Your task to perform on an android device: Open privacy settings Image 0: 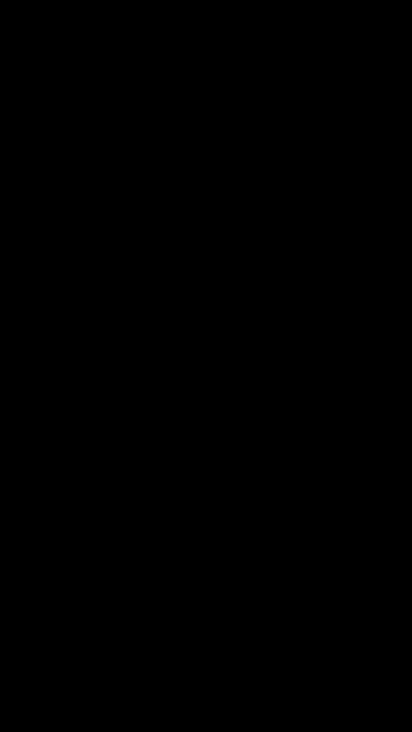
Step 0: click (221, 309)
Your task to perform on an android device: Open privacy settings Image 1: 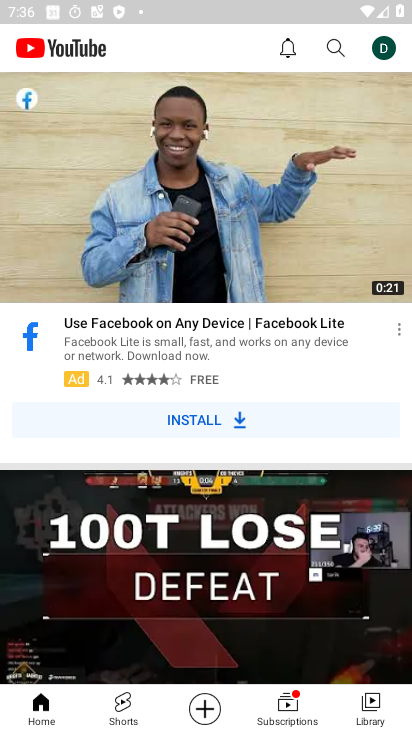
Step 1: press home button
Your task to perform on an android device: Open privacy settings Image 2: 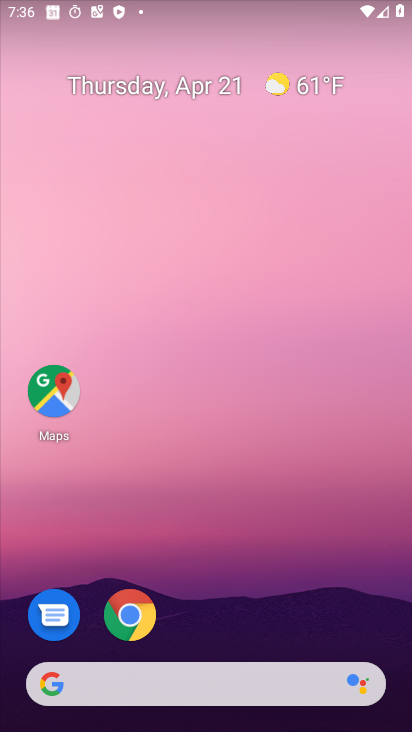
Step 2: drag from (188, 634) to (246, 190)
Your task to perform on an android device: Open privacy settings Image 3: 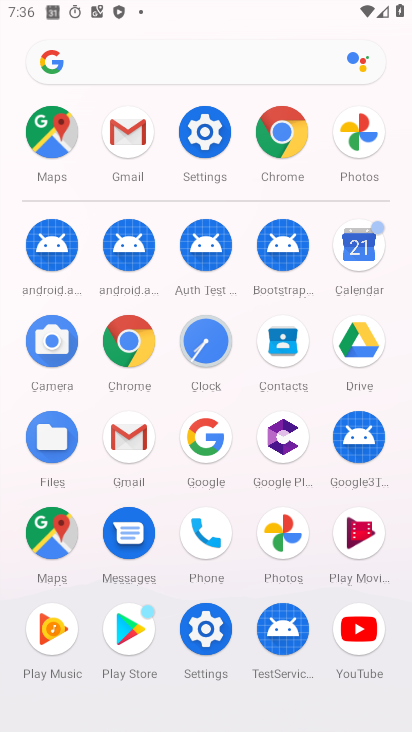
Step 3: click (205, 126)
Your task to perform on an android device: Open privacy settings Image 4: 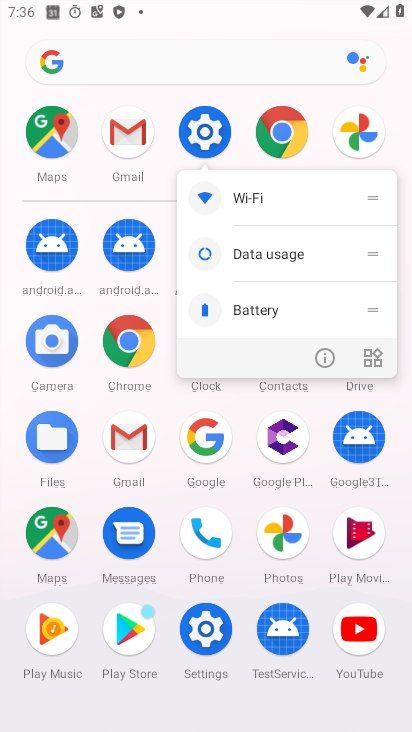
Step 4: click (328, 357)
Your task to perform on an android device: Open privacy settings Image 5: 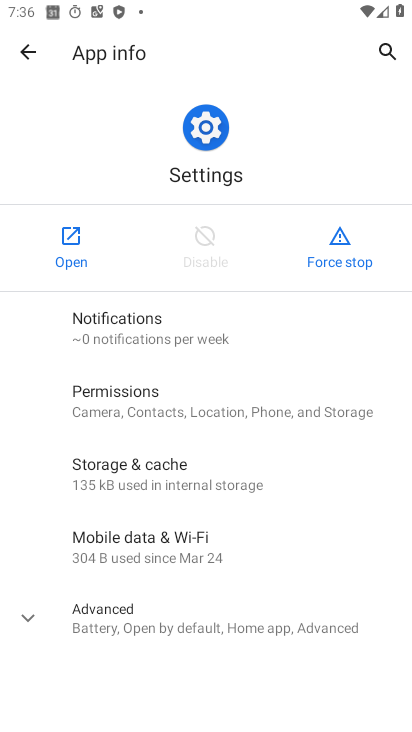
Step 5: click (79, 248)
Your task to perform on an android device: Open privacy settings Image 6: 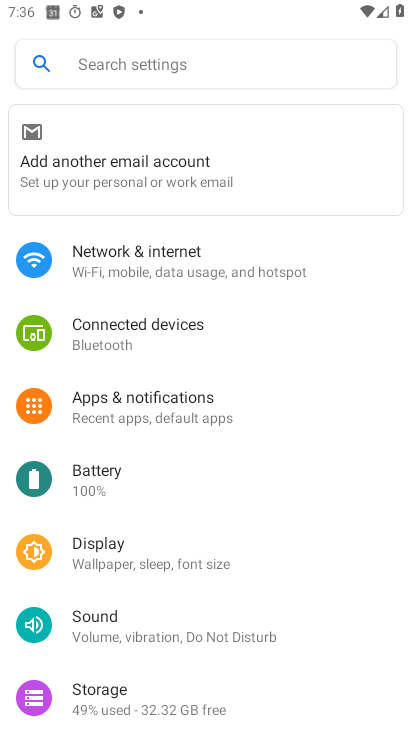
Step 6: drag from (240, 560) to (312, 58)
Your task to perform on an android device: Open privacy settings Image 7: 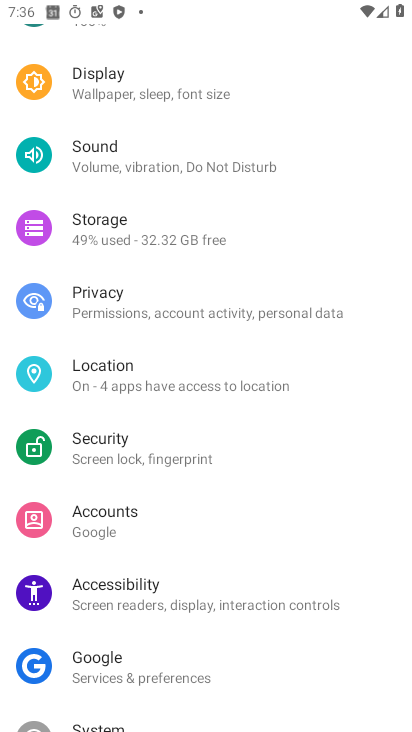
Step 7: click (130, 305)
Your task to perform on an android device: Open privacy settings Image 8: 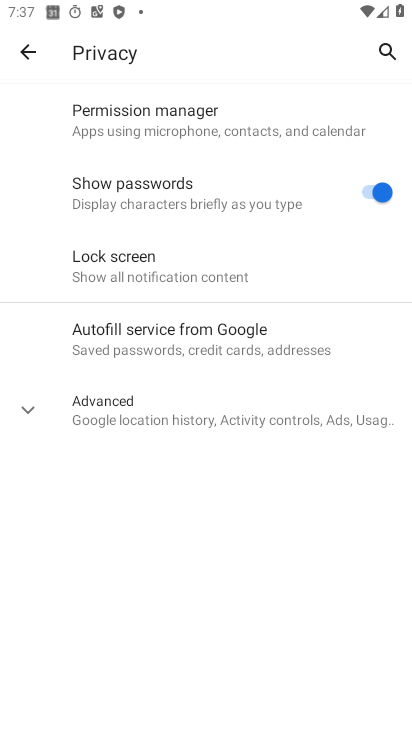
Step 8: drag from (198, 455) to (284, 46)
Your task to perform on an android device: Open privacy settings Image 9: 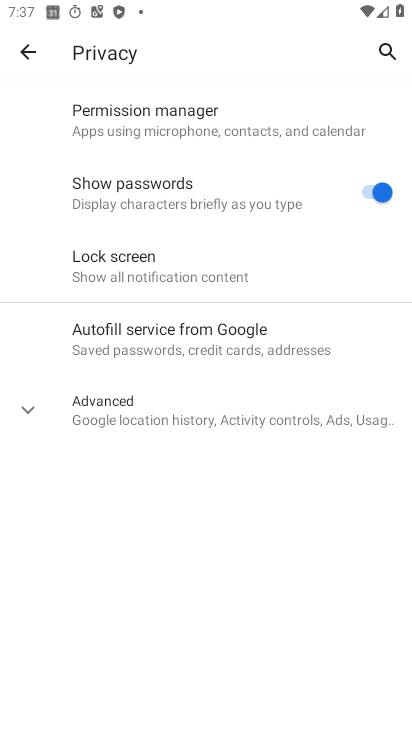
Step 9: click (142, 57)
Your task to perform on an android device: Open privacy settings Image 10: 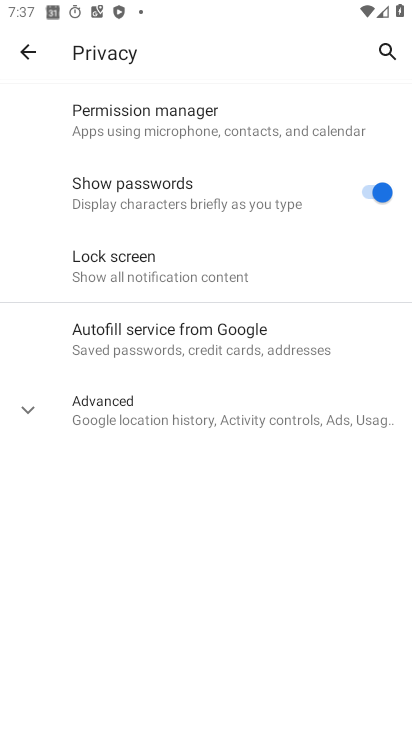
Step 10: drag from (243, 541) to (270, 331)
Your task to perform on an android device: Open privacy settings Image 11: 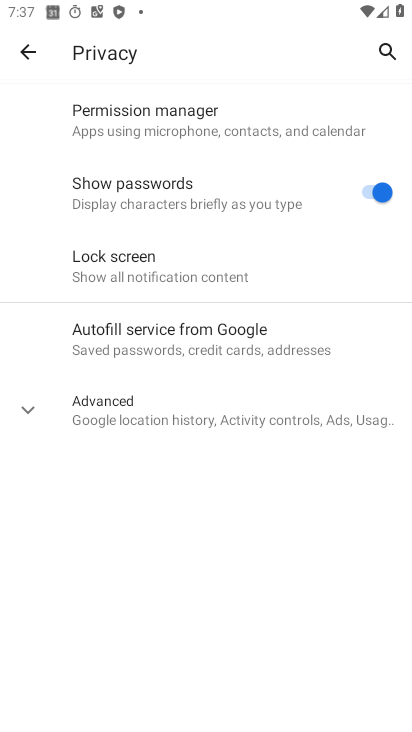
Step 11: click (207, 52)
Your task to perform on an android device: Open privacy settings Image 12: 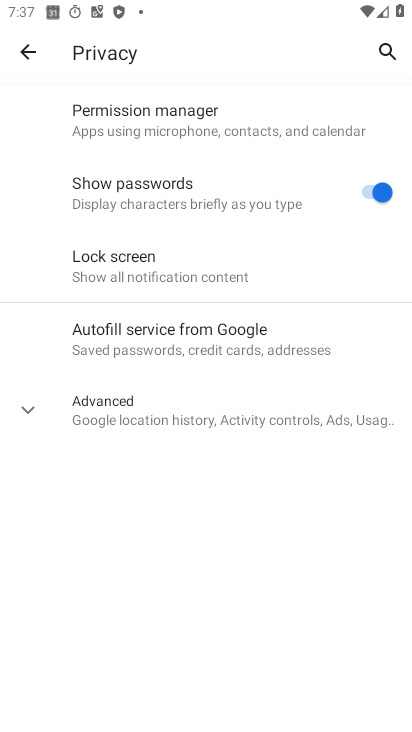
Step 12: task complete